Your task to perform on an android device: Open Chrome and go to settings Image 0: 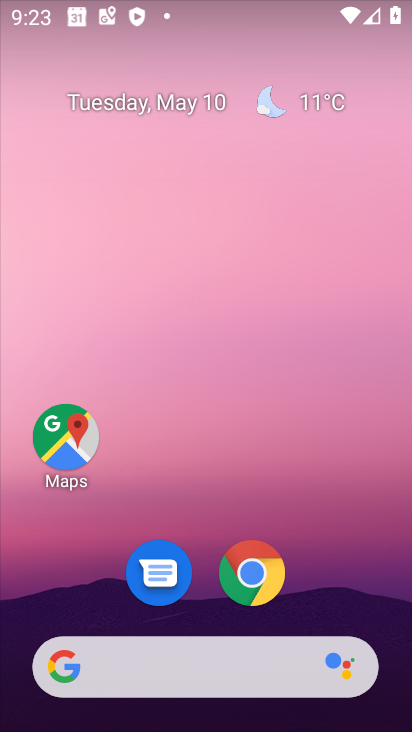
Step 0: click (254, 581)
Your task to perform on an android device: Open Chrome and go to settings Image 1: 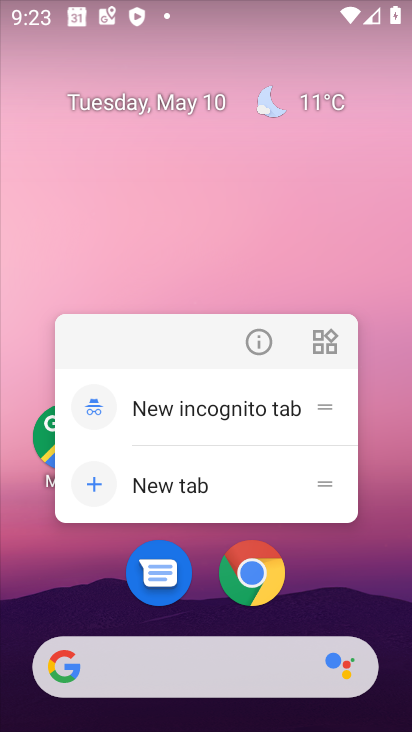
Step 1: click (250, 573)
Your task to perform on an android device: Open Chrome and go to settings Image 2: 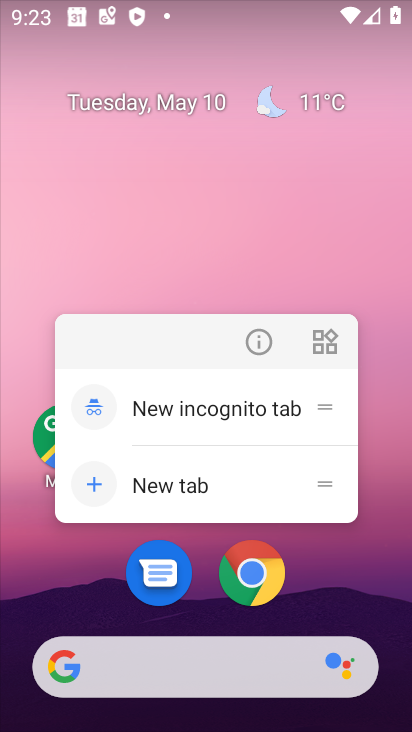
Step 2: click (259, 579)
Your task to perform on an android device: Open Chrome and go to settings Image 3: 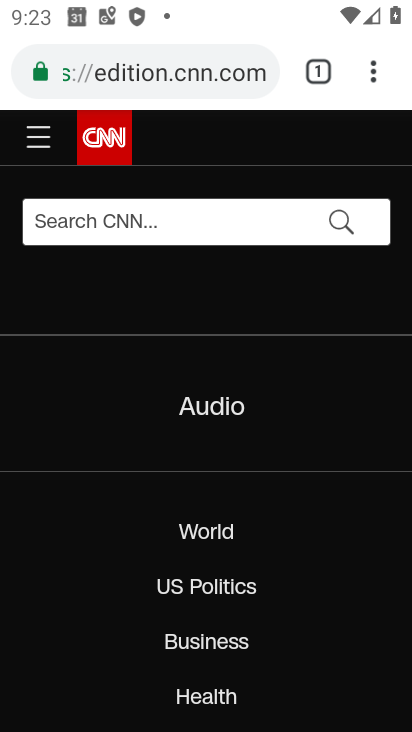
Step 3: click (371, 70)
Your task to perform on an android device: Open Chrome and go to settings Image 4: 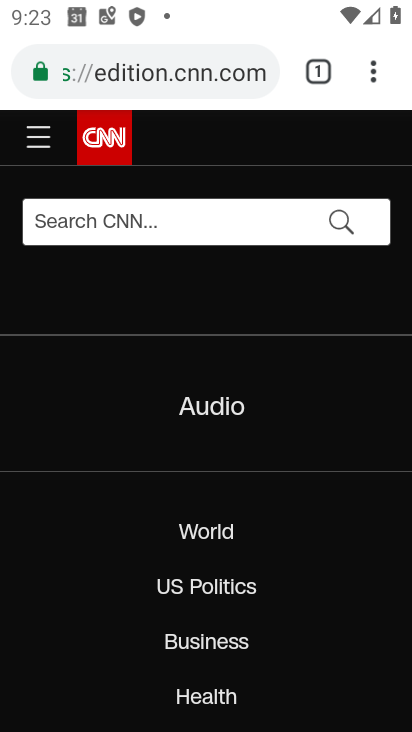
Step 4: task complete